Your task to perform on an android device: Go to wifi settings Image 0: 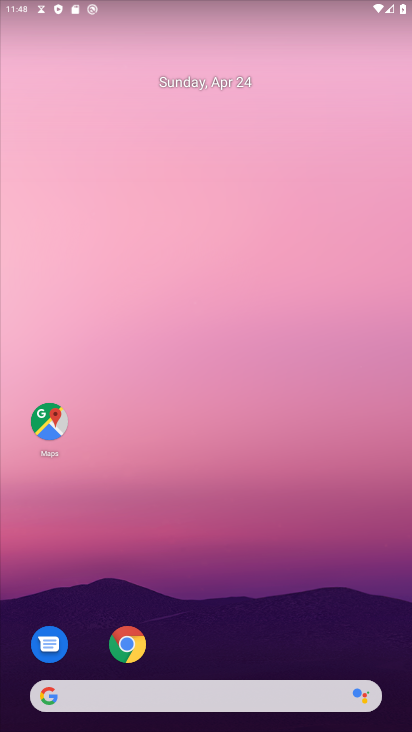
Step 0: drag from (351, 643) to (335, 30)
Your task to perform on an android device: Go to wifi settings Image 1: 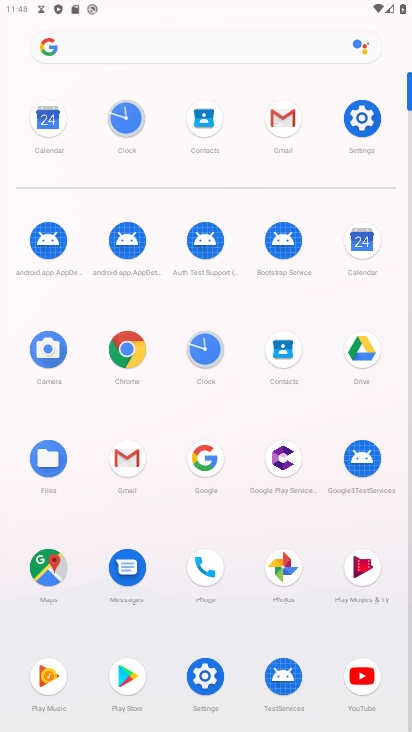
Step 1: click (364, 119)
Your task to perform on an android device: Go to wifi settings Image 2: 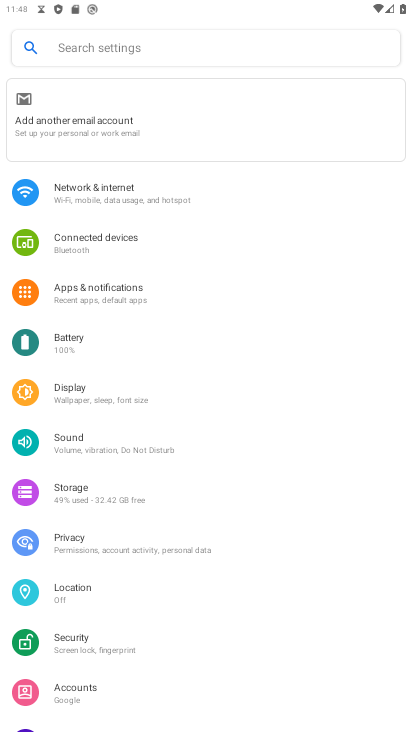
Step 2: click (80, 198)
Your task to perform on an android device: Go to wifi settings Image 3: 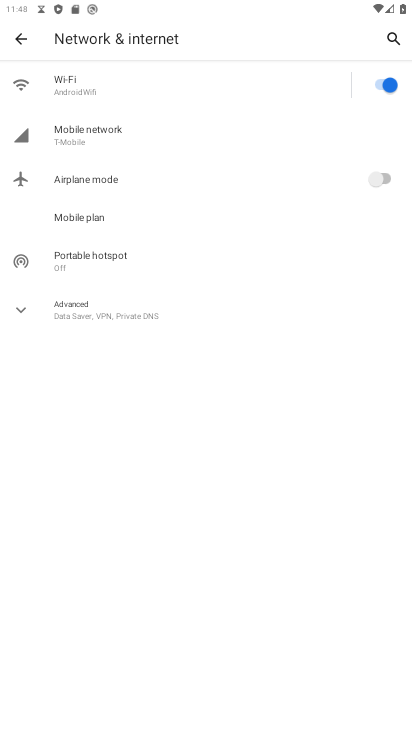
Step 3: click (80, 87)
Your task to perform on an android device: Go to wifi settings Image 4: 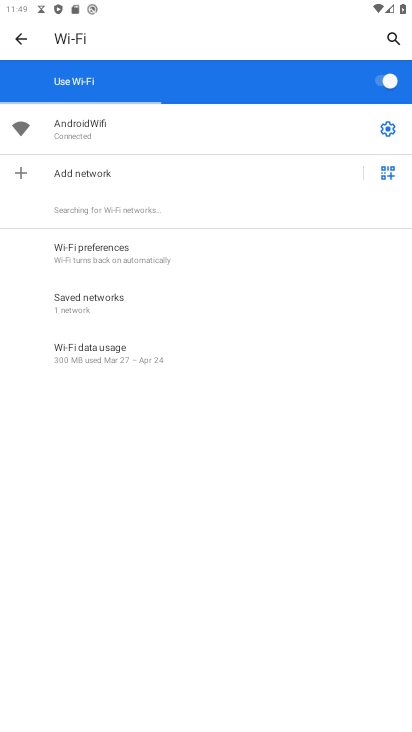
Step 4: task complete